Your task to perform on an android device: Empty the shopping cart on amazon. Search for "logitech g933" on amazon, select the first entry, and add it to the cart. Image 0: 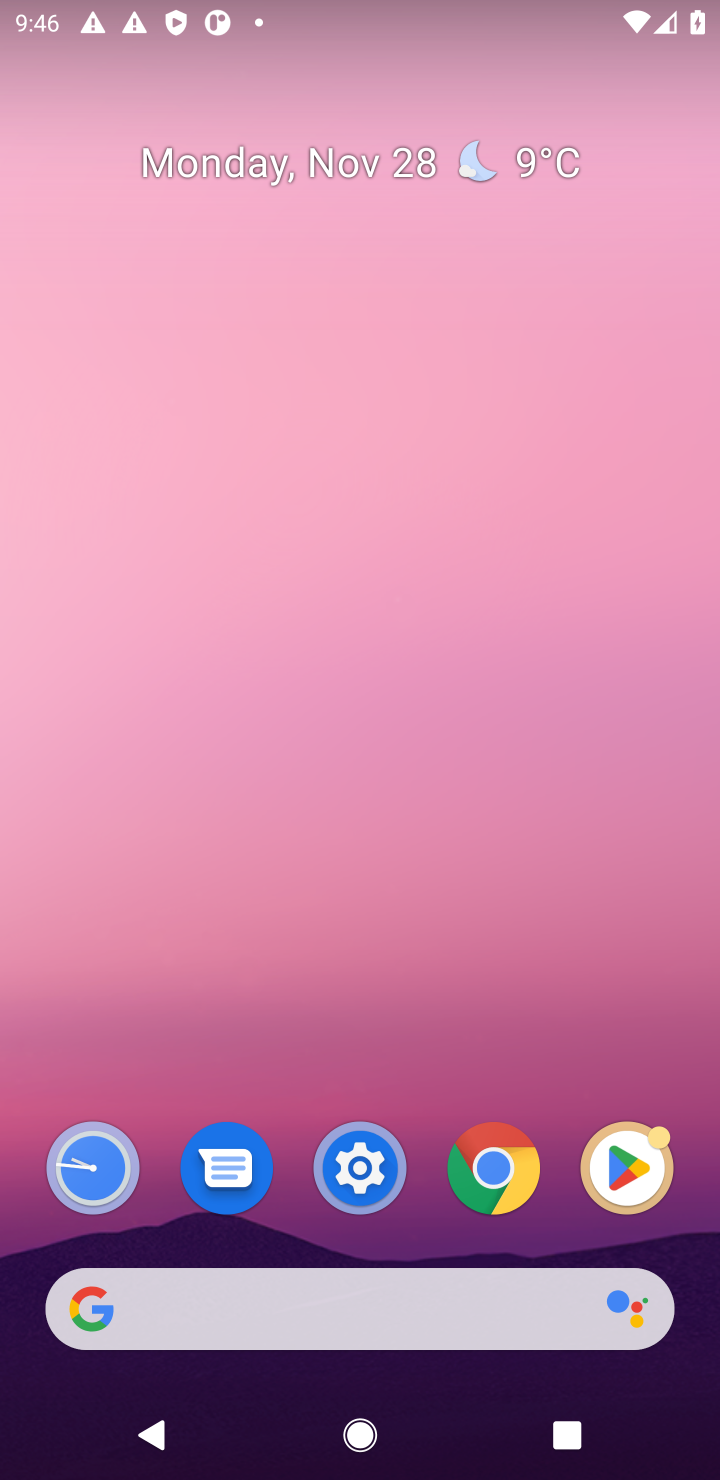
Step 0: click (344, 1278)
Your task to perform on an android device: Empty the shopping cart on amazon. Search for "logitech g933" on amazon, select the first entry, and add it to the cart. Image 1: 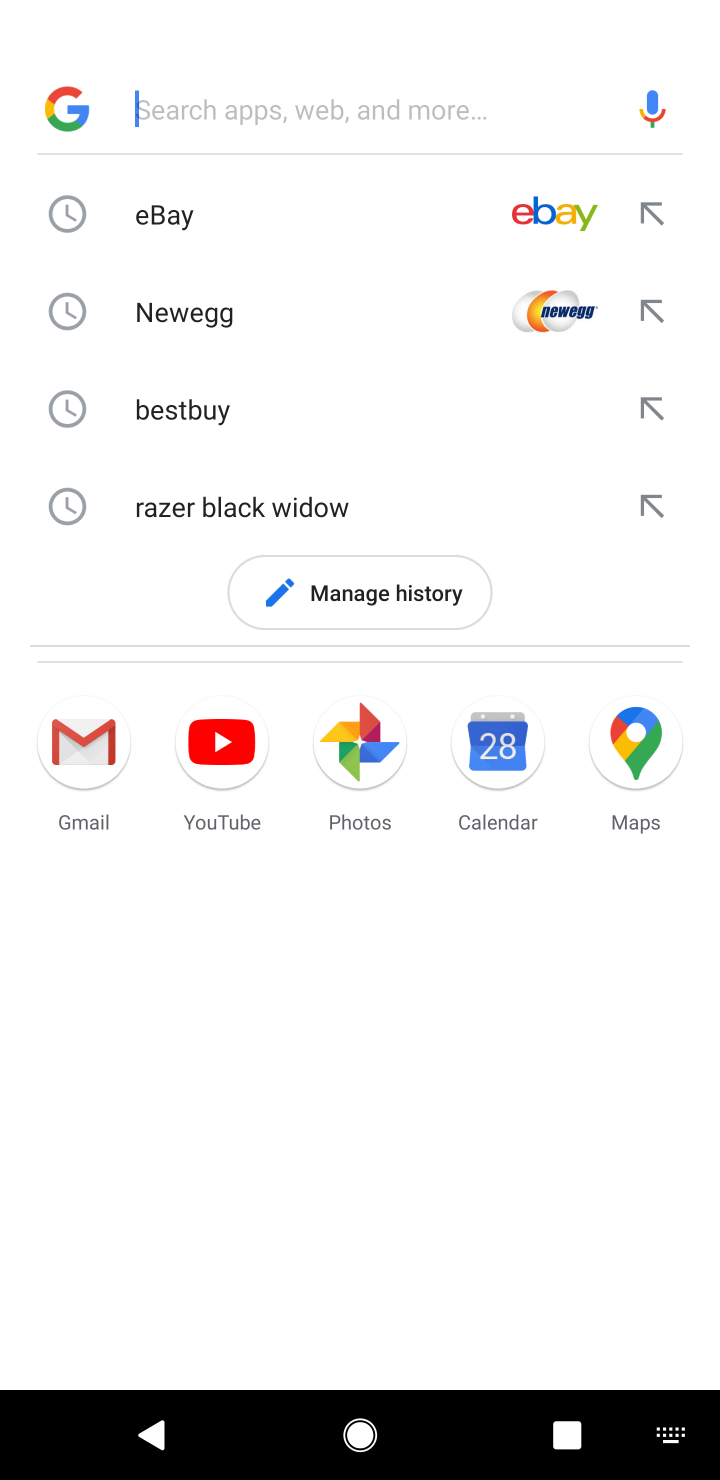
Step 1: type "amazon"
Your task to perform on an android device: Empty the shopping cart on amazon. Search for "logitech g933" on amazon, select the first entry, and add it to the cart. Image 2: 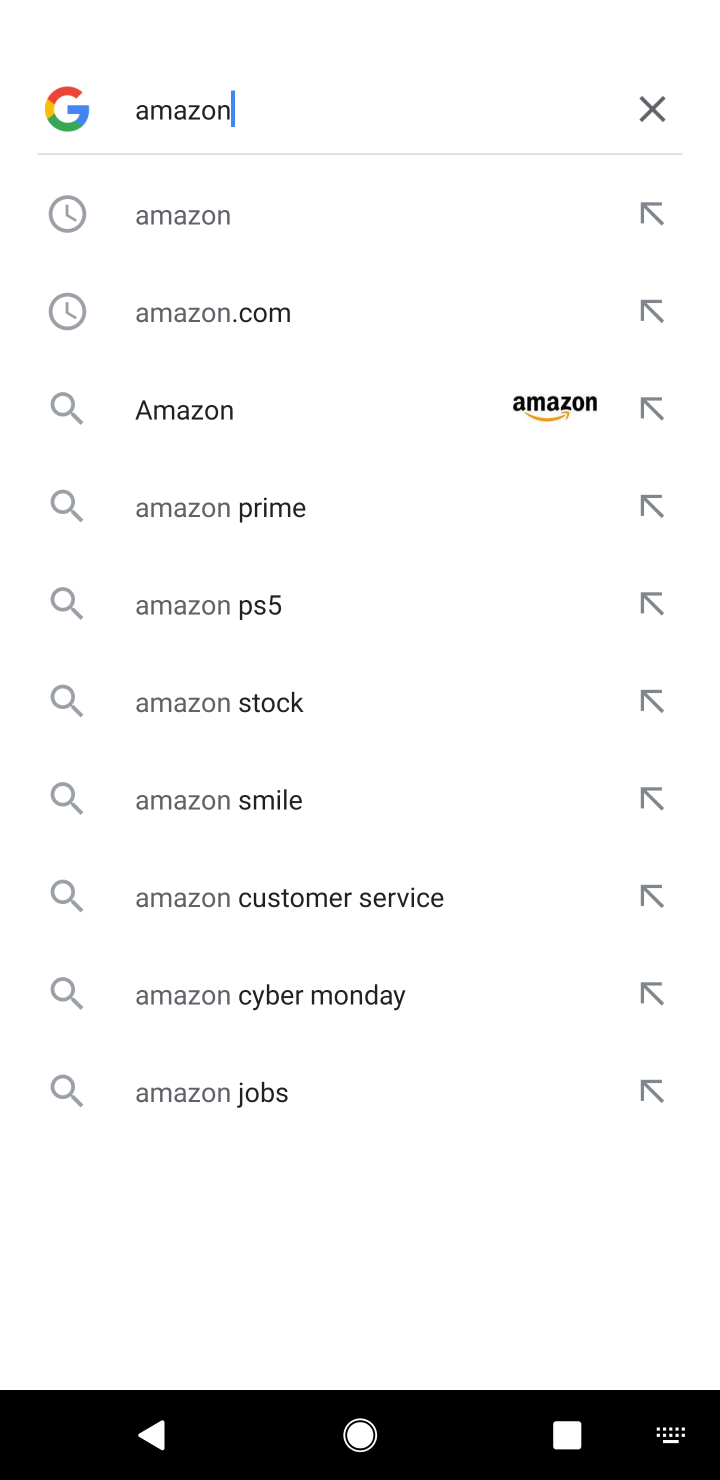
Step 2: click (358, 404)
Your task to perform on an android device: Empty the shopping cart on amazon. Search for "logitech g933" on amazon, select the first entry, and add it to the cart. Image 3: 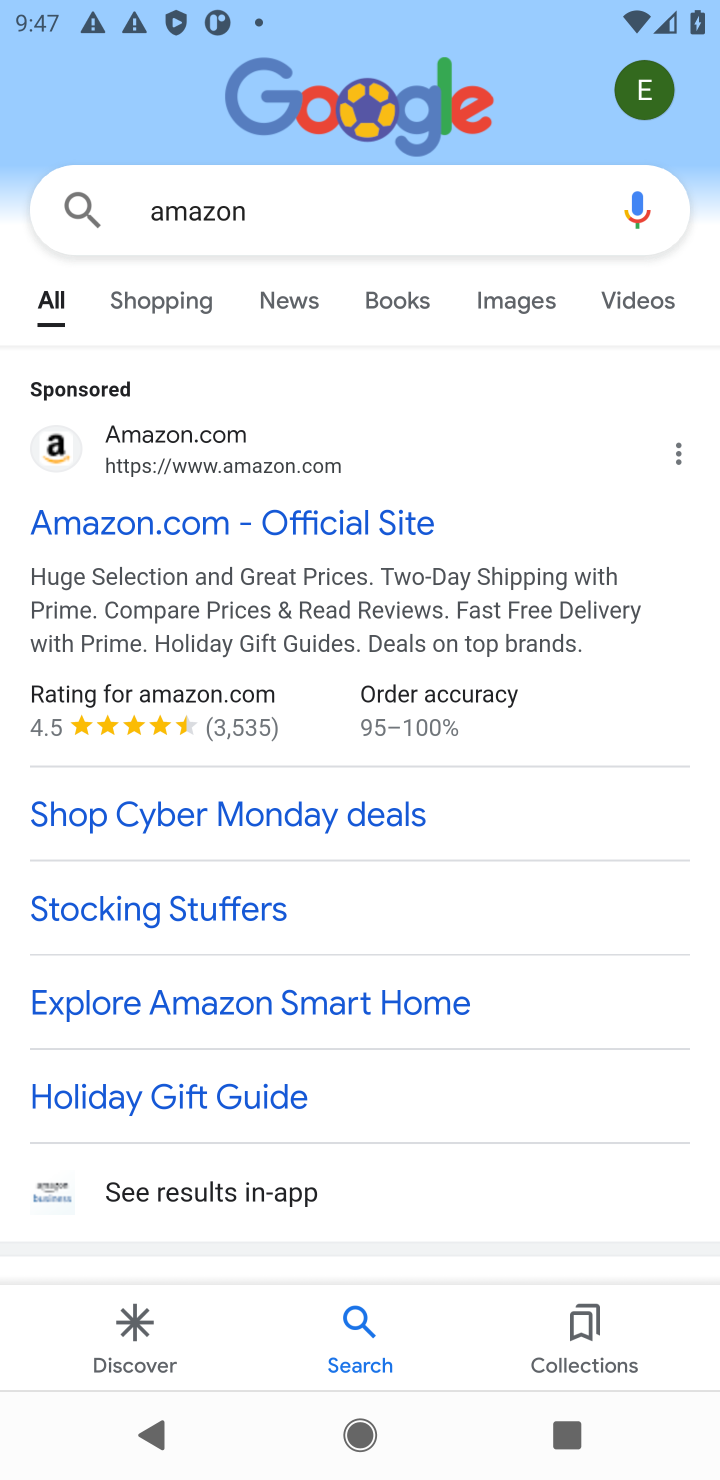
Step 3: click (157, 512)
Your task to perform on an android device: Empty the shopping cart on amazon. Search for "logitech g933" on amazon, select the first entry, and add it to the cart. Image 4: 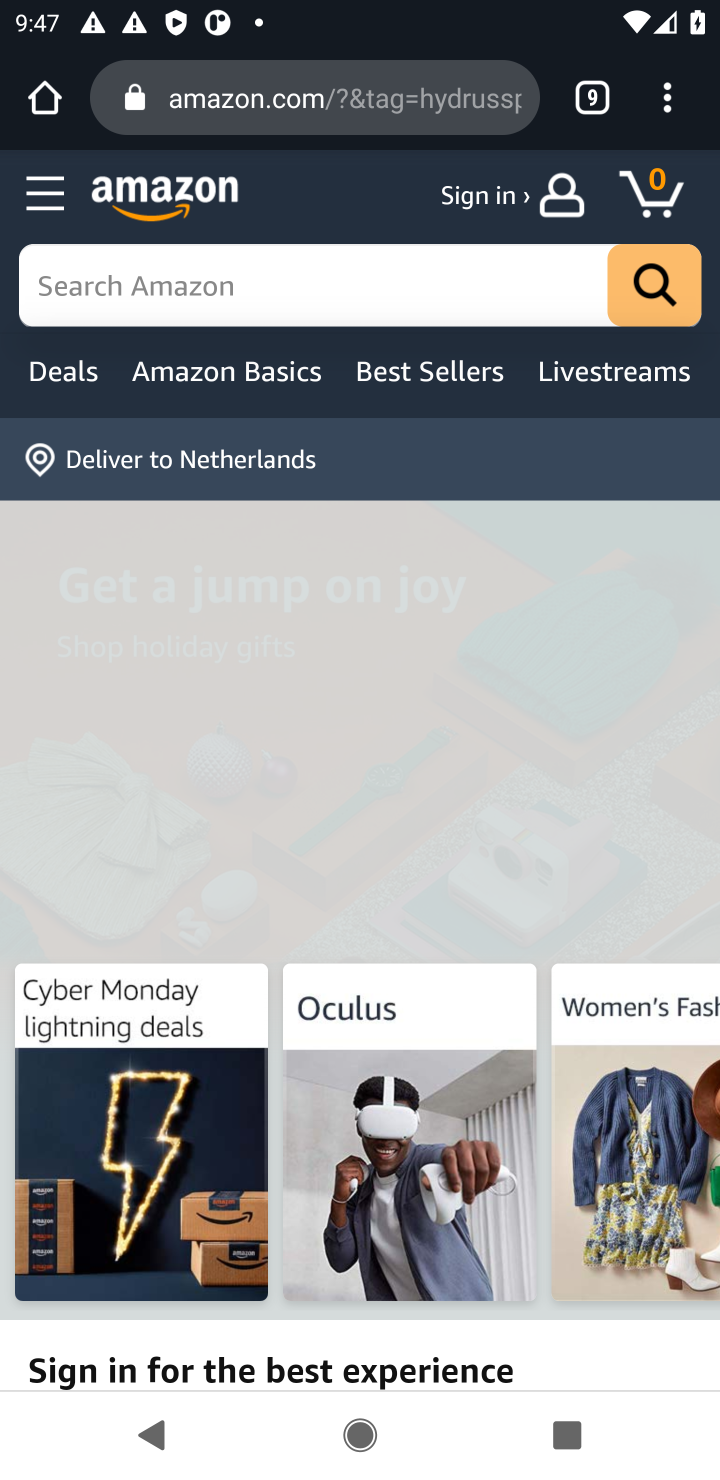
Step 4: click (184, 299)
Your task to perform on an android device: Empty the shopping cart on amazon. Search for "logitech g933" on amazon, select the first entry, and add it to the cart. Image 5: 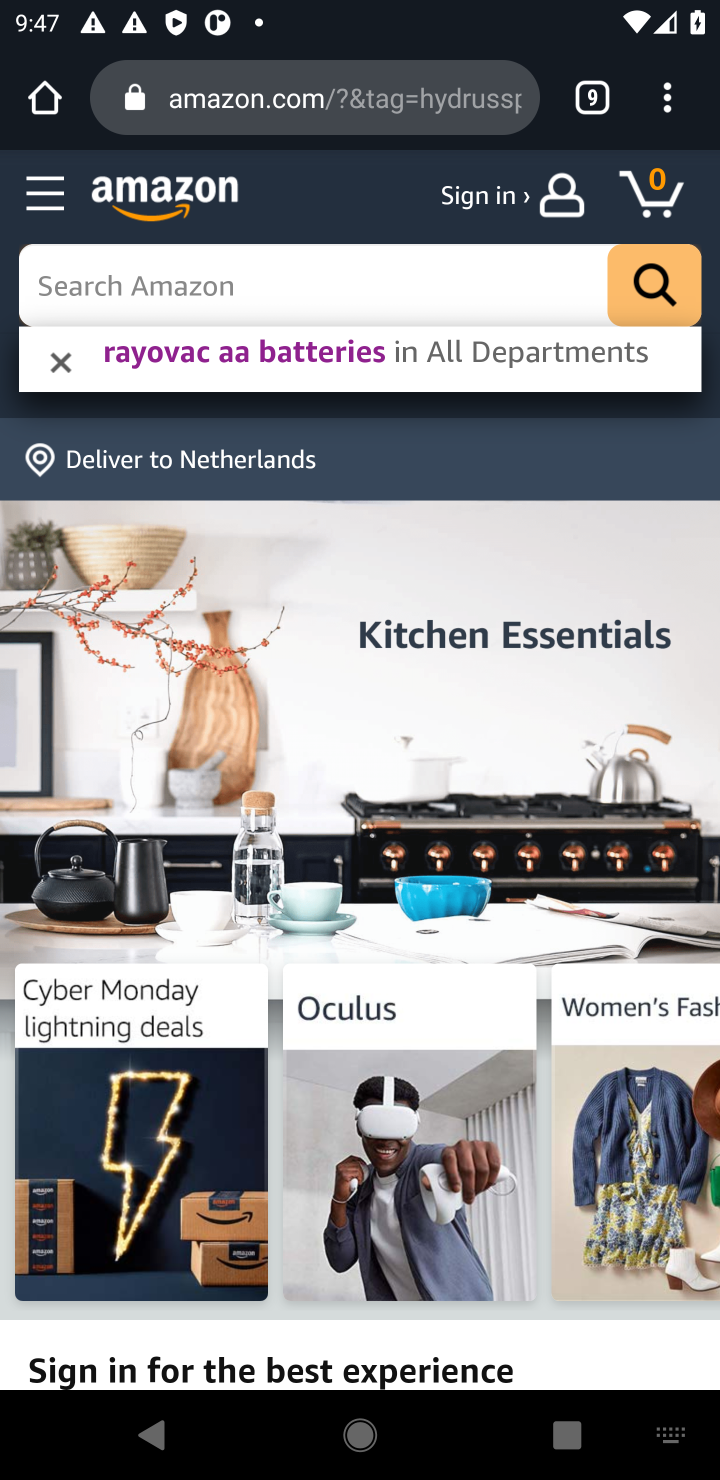
Step 5: type "logitech g933"
Your task to perform on an android device: Empty the shopping cart on amazon. Search for "logitech g933" on amazon, select the first entry, and add it to the cart. Image 6: 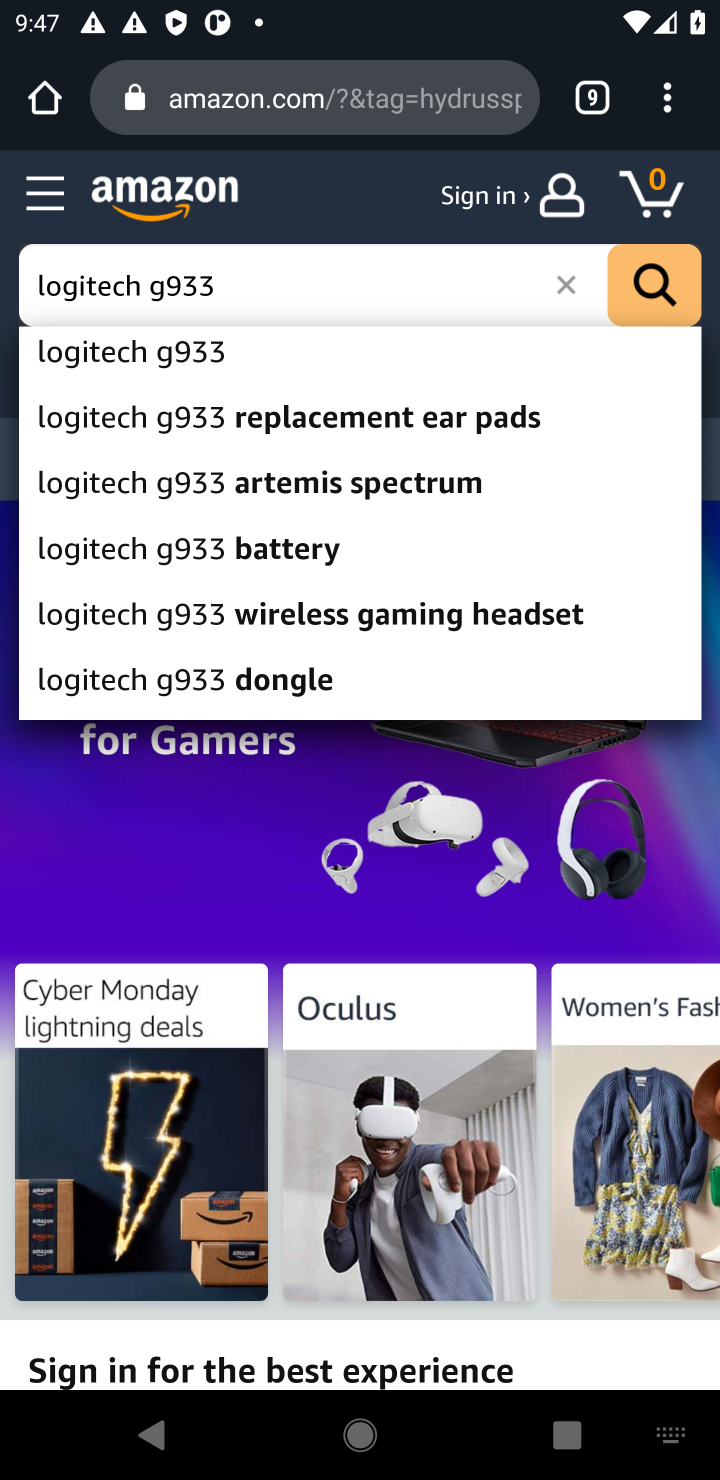
Step 6: click (162, 352)
Your task to perform on an android device: Empty the shopping cart on amazon. Search for "logitech g933" on amazon, select the first entry, and add it to the cart. Image 7: 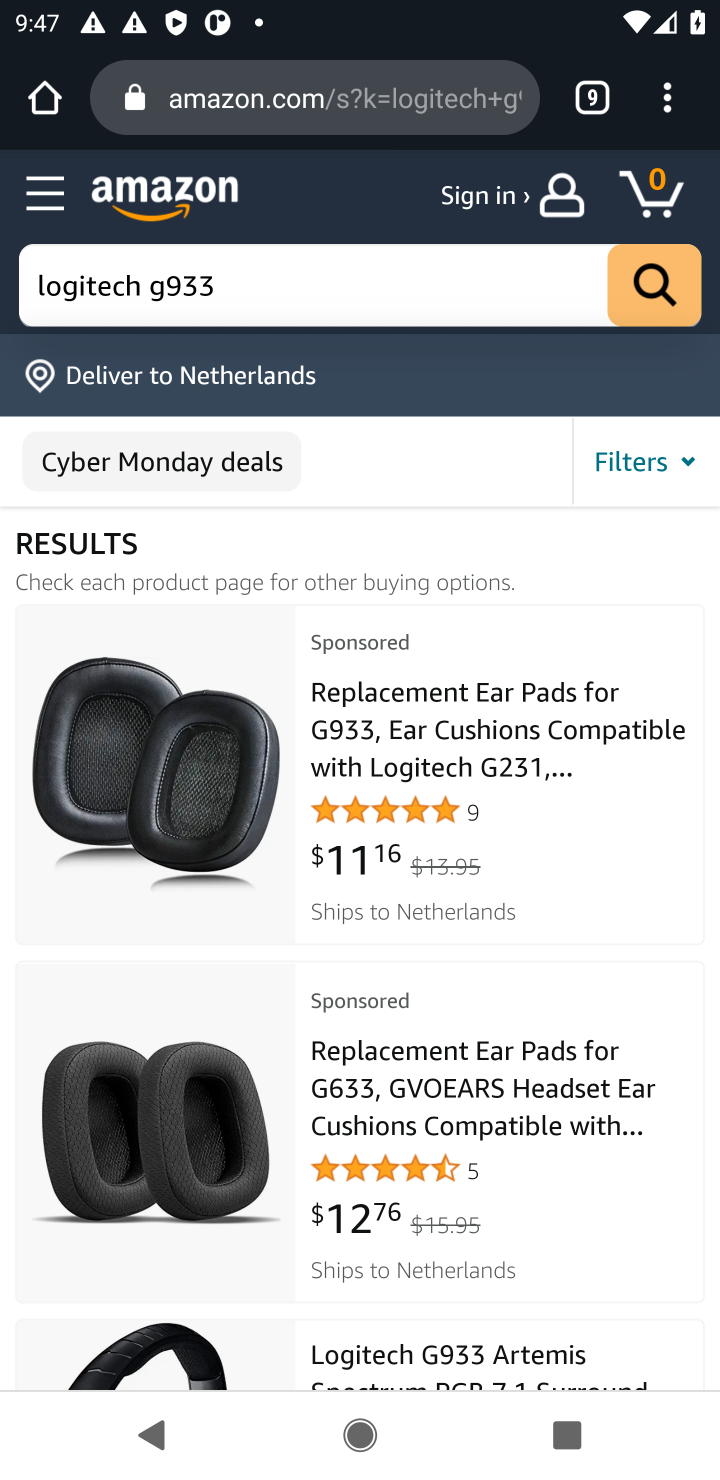
Step 7: click (387, 748)
Your task to perform on an android device: Empty the shopping cart on amazon. Search for "logitech g933" on amazon, select the first entry, and add it to the cart. Image 8: 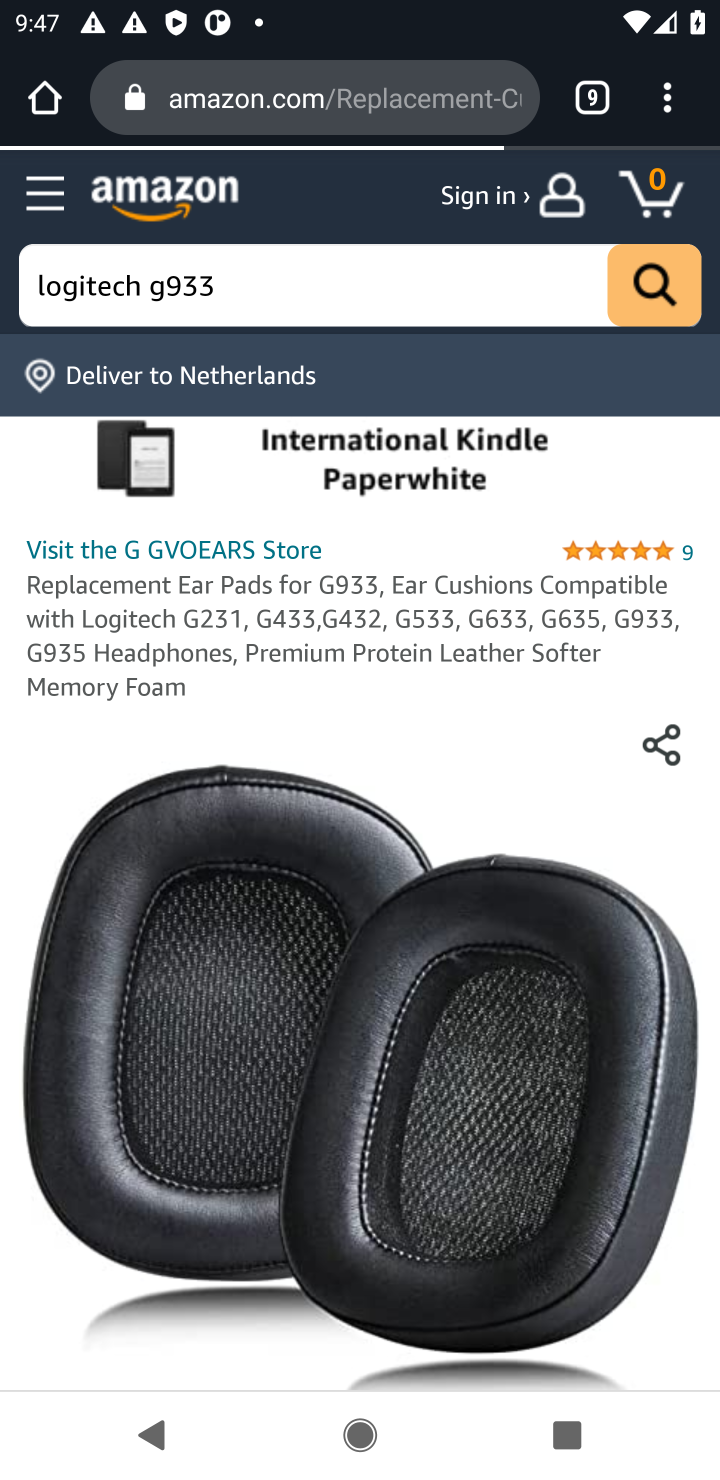
Step 8: drag from (362, 1012) to (370, 763)
Your task to perform on an android device: Empty the shopping cart on amazon. Search for "logitech g933" on amazon, select the first entry, and add it to the cart. Image 9: 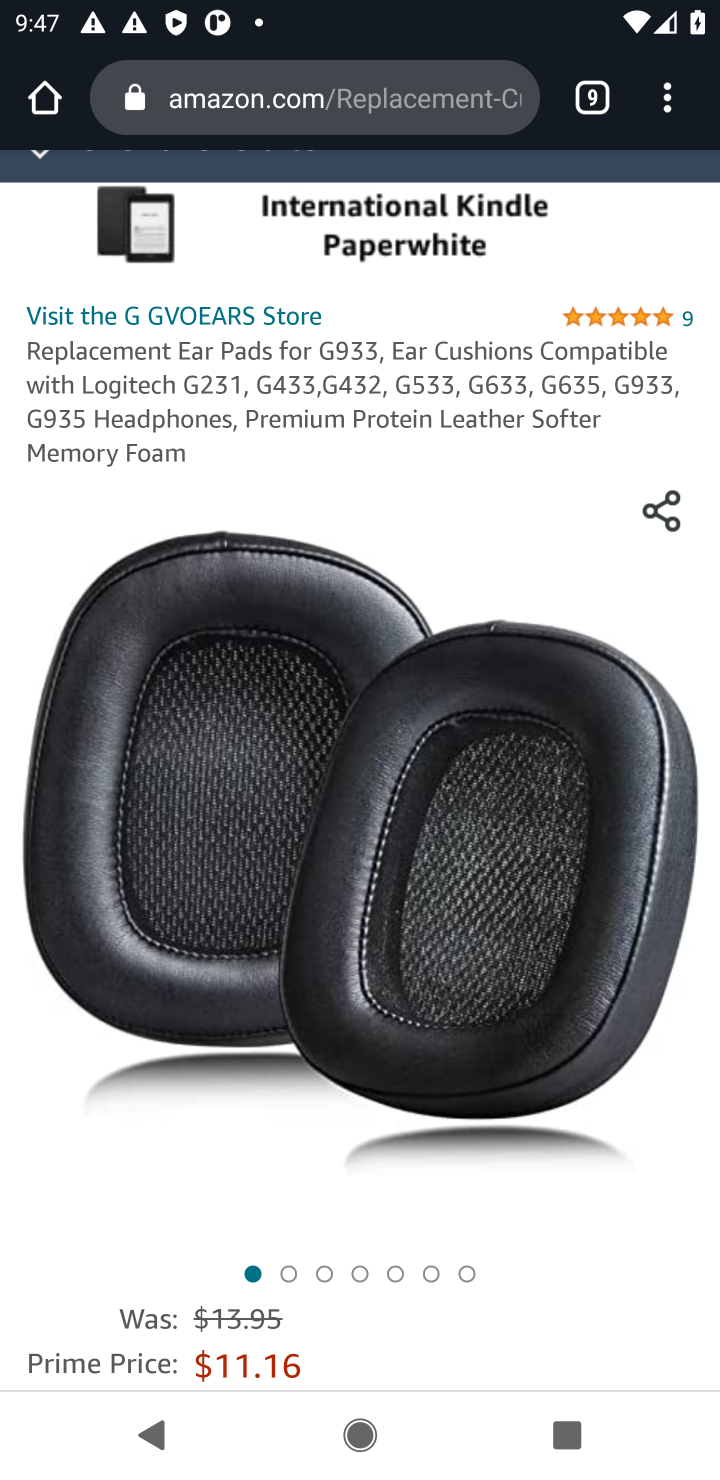
Step 9: drag from (457, 1200) to (428, 724)
Your task to perform on an android device: Empty the shopping cart on amazon. Search for "logitech g933" on amazon, select the first entry, and add it to the cart. Image 10: 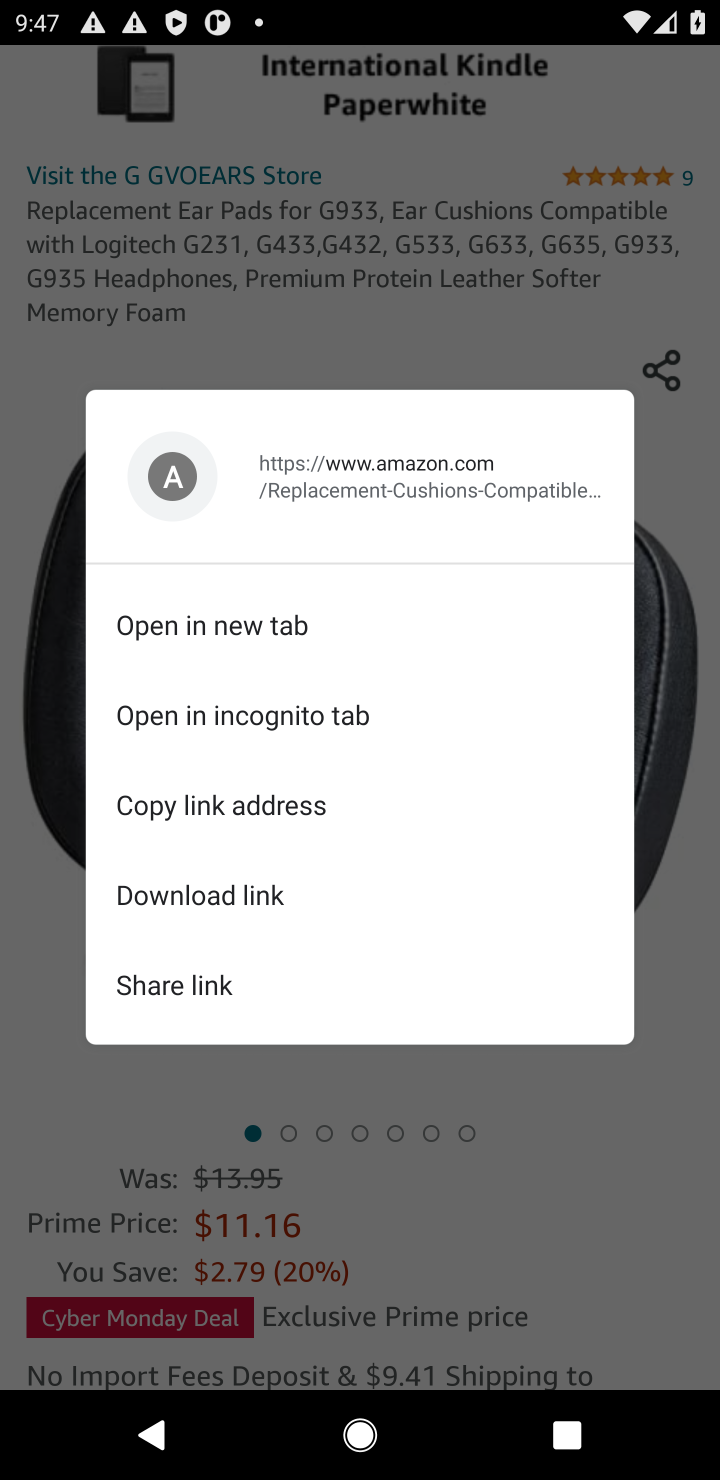
Step 10: click (568, 1147)
Your task to perform on an android device: Empty the shopping cart on amazon. Search for "logitech g933" on amazon, select the first entry, and add it to the cart. Image 11: 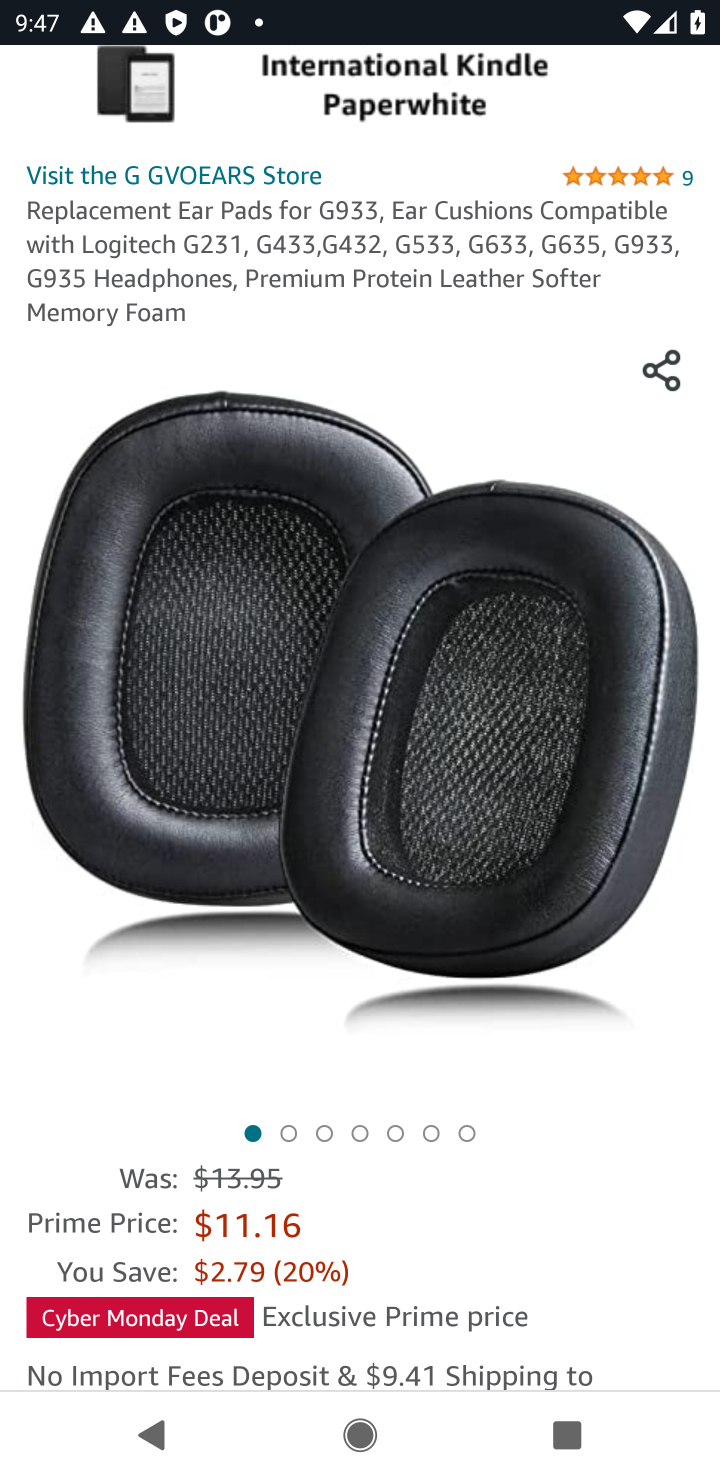
Step 11: task complete